Your task to perform on an android device: turn off translation in the chrome app Image 0: 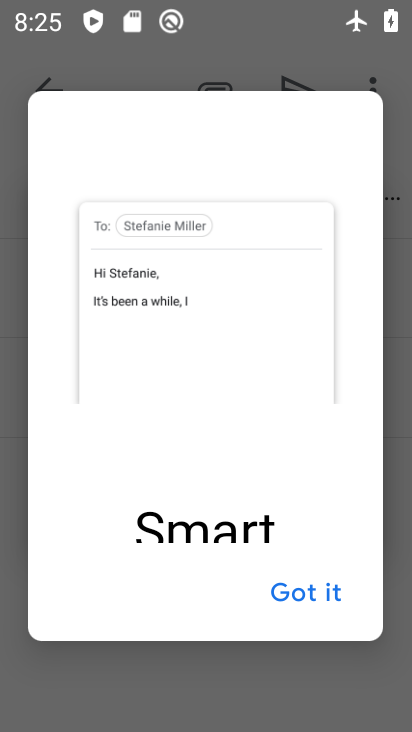
Step 0: press home button
Your task to perform on an android device: turn off translation in the chrome app Image 1: 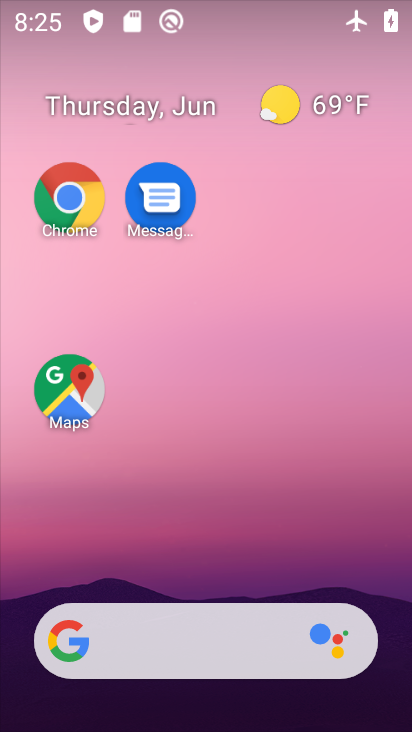
Step 1: click (51, 191)
Your task to perform on an android device: turn off translation in the chrome app Image 2: 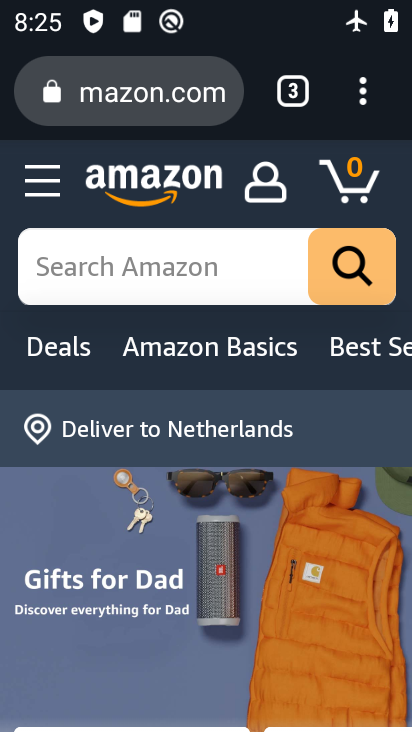
Step 2: click (363, 107)
Your task to perform on an android device: turn off translation in the chrome app Image 3: 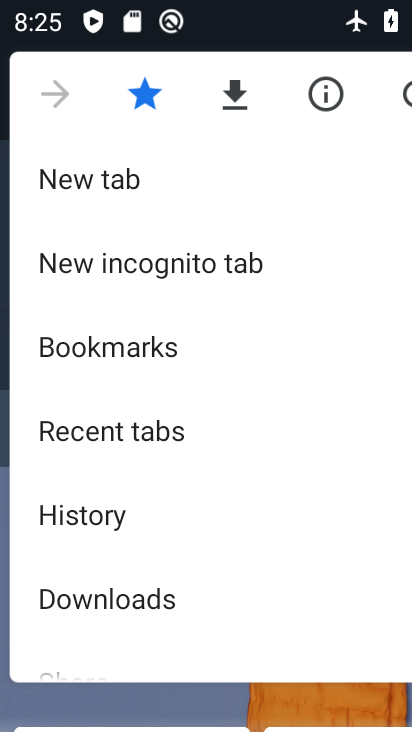
Step 3: drag from (151, 567) to (129, 277)
Your task to perform on an android device: turn off translation in the chrome app Image 4: 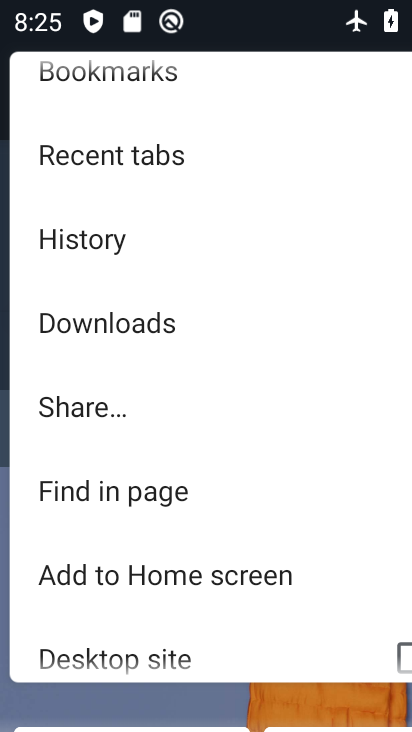
Step 4: drag from (98, 592) to (98, 90)
Your task to perform on an android device: turn off translation in the chrome app Image 5: 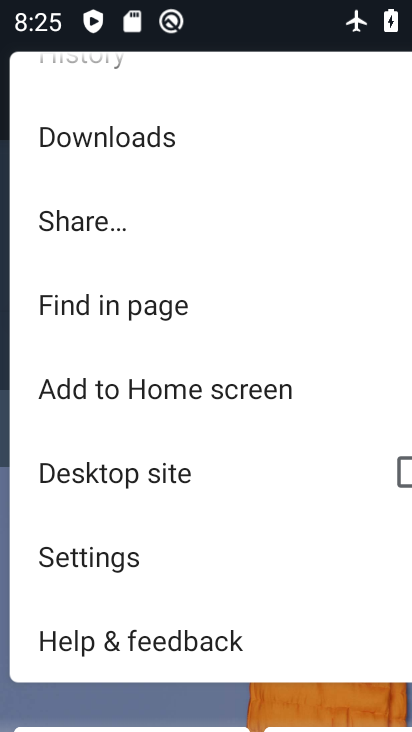
Step 5: click (105, 543)
Your task to perform on an android device: turn off translation in the chrome app Image 6: 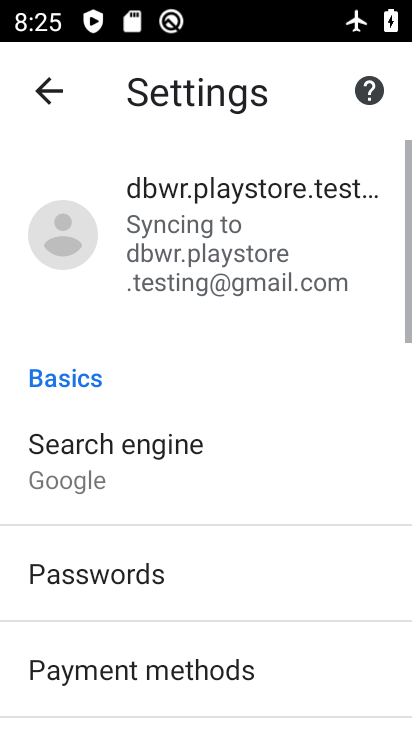
Step 6: drag from (105, 543) to (72, 131)
Your task to perform on an android device: turn off translation in the chrome app Image 7: 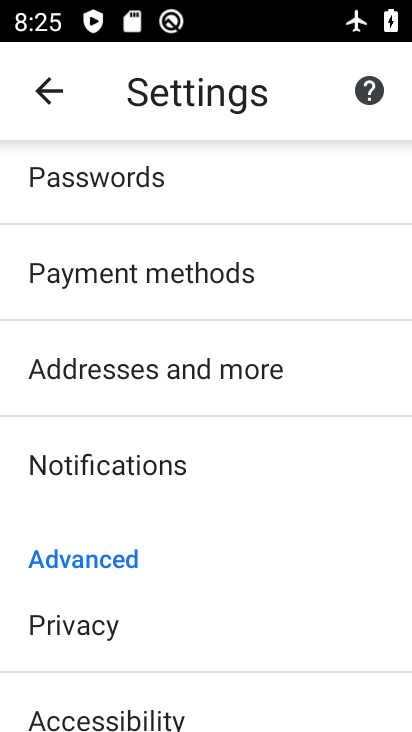
Step 7: drag from (139, 634) to (149, 319)
Your task to perform on an android device: turn off translation in the chrome app Image 8: 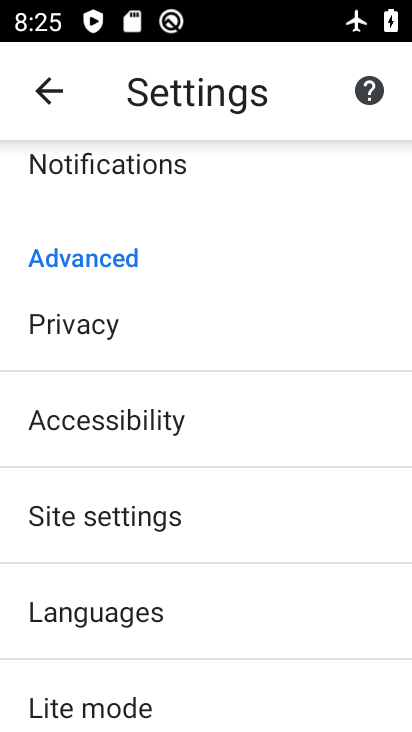
Step 8: click (136, 614)
Your task to perform on an android device: turn off translation in the chrome app Image 9: 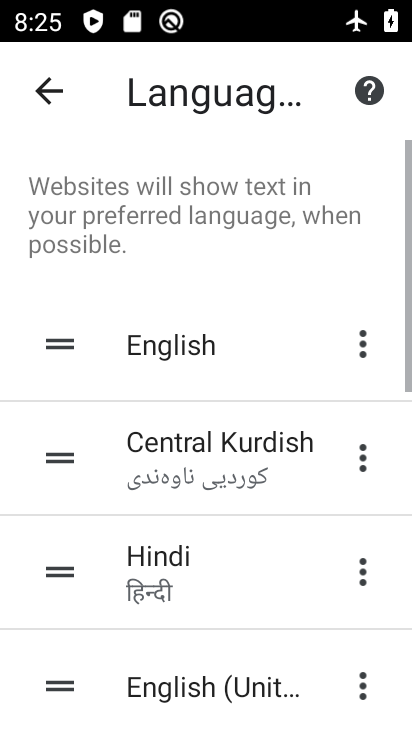
Step 9: drag from (136, 614) to (67, 174)
Your task to perform on an android device: turn off translation in the chrome app Image 10: 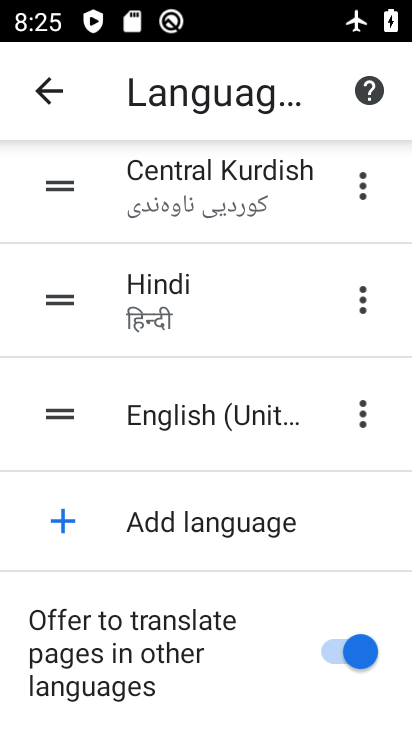
Step 10: click (368, 673)
Your task to perform on an android device: turn off translation in the chrome app Image 11: 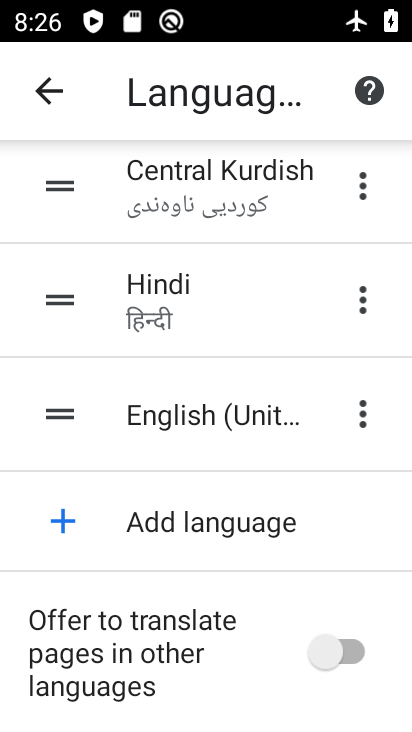
Step 11: task complete